Your task to perform on an android device: turn off javascript in the chrome app Image 0: 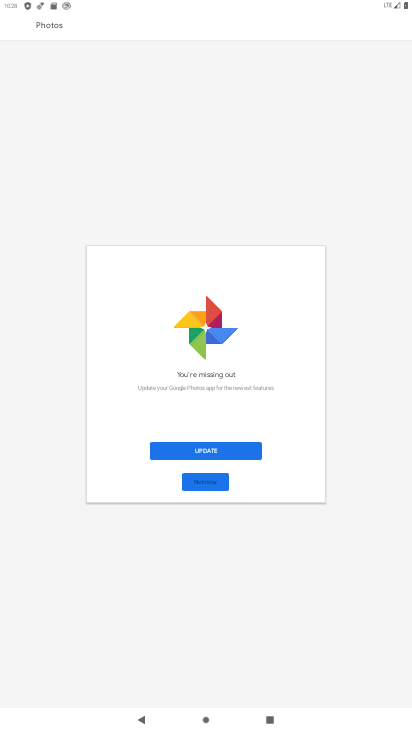
Step 0: press home button
Your task to perform on an android device: turn off javascript in the chrome app Image 1: 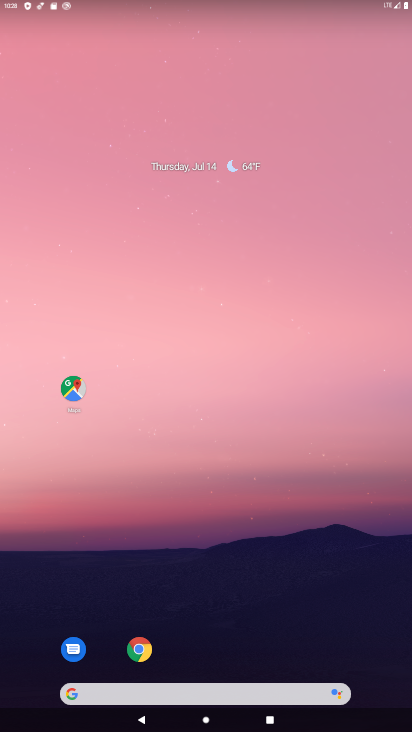
Step 1: drag from (383, 613) to (345, 117)
Your task to perform on an android device: turn off javascript in the chrome app Image 2: 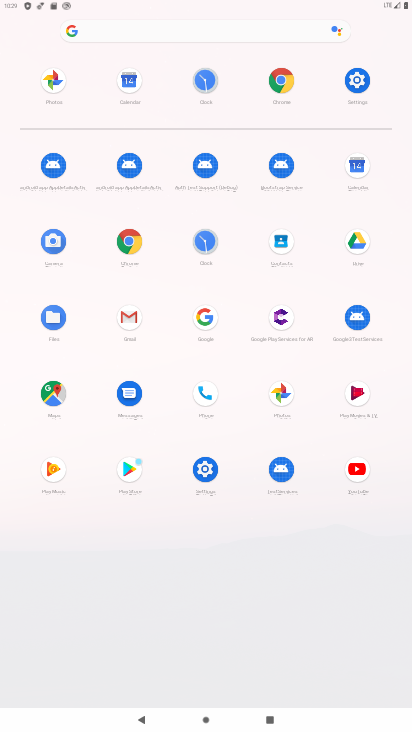
Step 2: click (132, 254)
Your task to perform on an android device: turn off javascript in the chrome app Image 3: 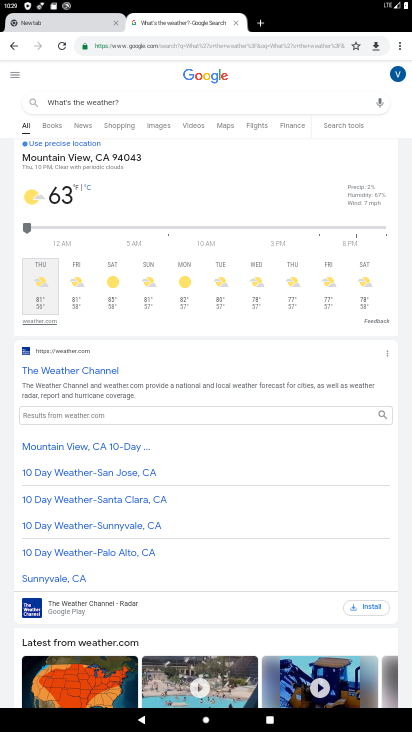
Step 3: drag from (400, 51) to (297, 288)
Your task to perform on an android device: turn off javascript in the chrome app Image 4: 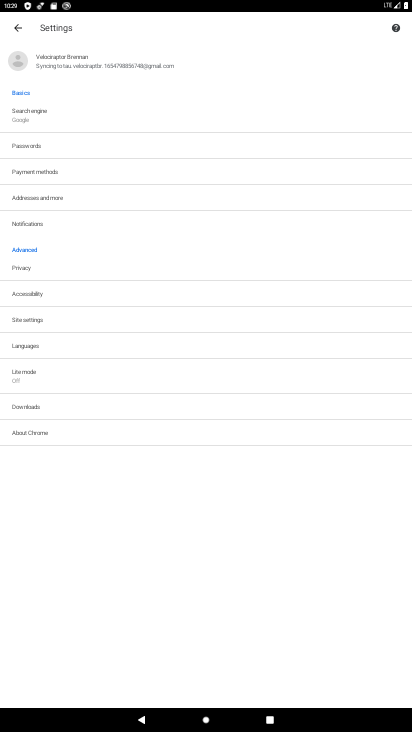
Step 4: click (46, 319)
Your task to perform on an android device: turn off javascript in the chrome app Image 5: 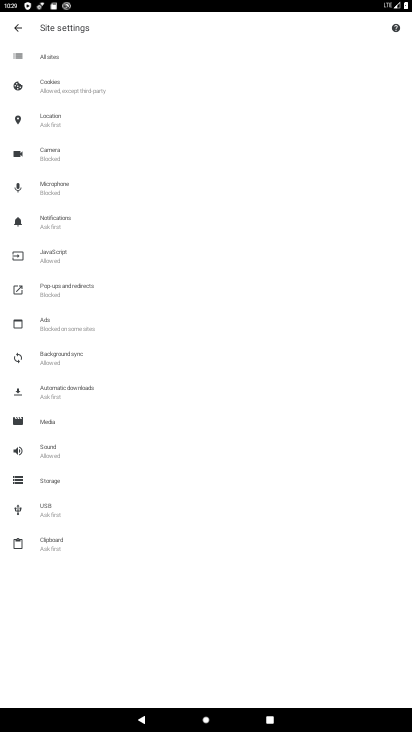
Step 5: click (49, 254)
Your task to perform on an android device: turn off javascript in the chrome app Image 6: 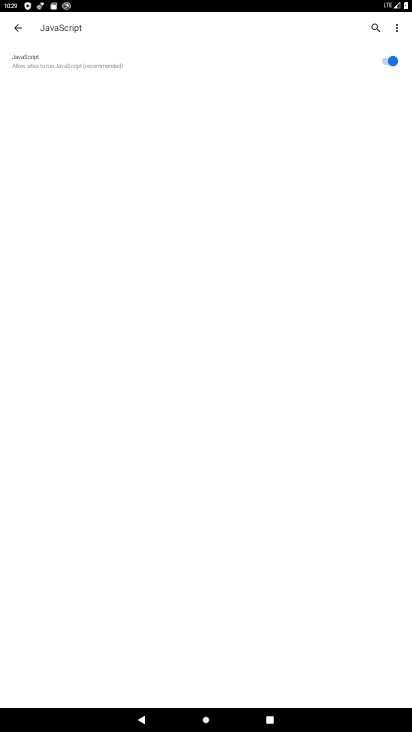
Step 6: click (160, 58)
Your task to perform on an android device: turn off javascript in the chrome app Image 7: 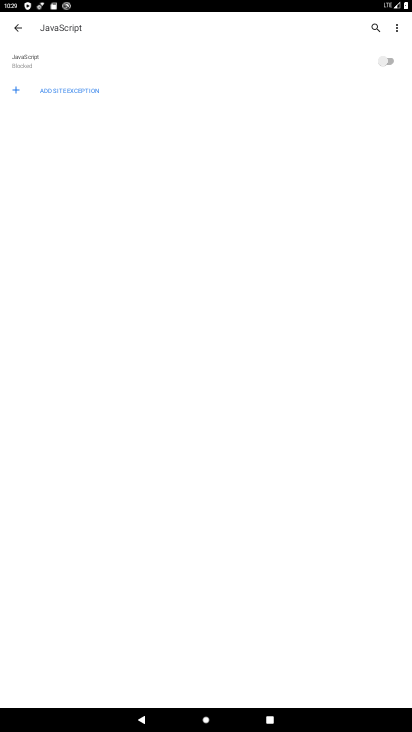
Step 7: task complete